Your task to perform on an android device: snooze an email in the gmail app Image 0: 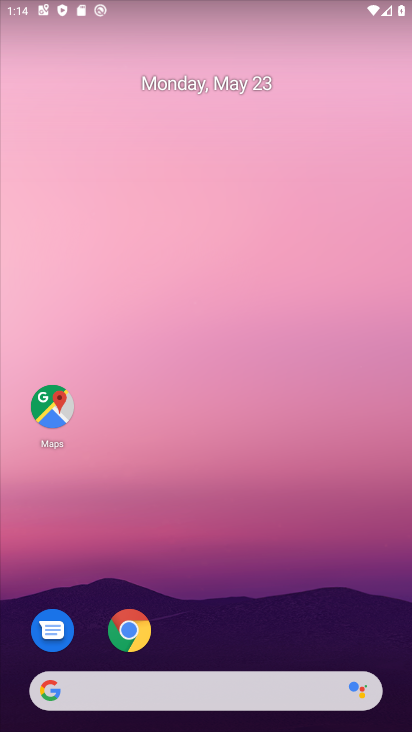
Step 0: drag from (368, 539) to (354, 196)
Your task to perform on an android device: snooze an email in the gmail app Image 1: 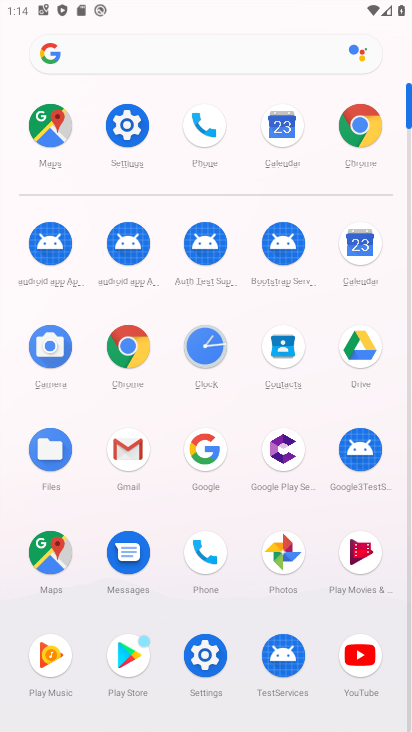
Step 1: click (132, 459)
Your task to perform on an android device: snooze an email in the gmail app Image 2: 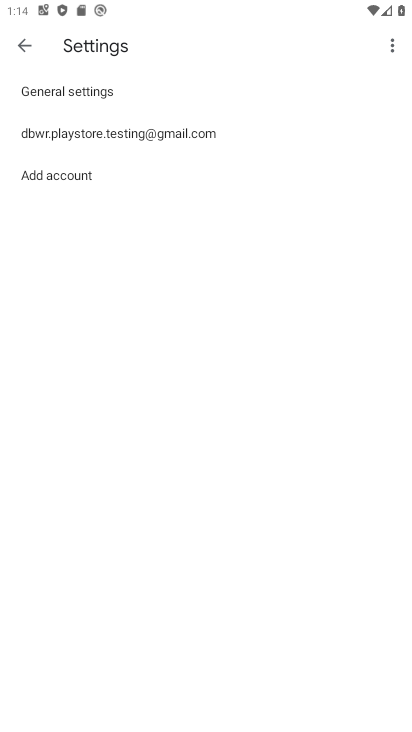
Step 2: click (160, 134)
Your task to perform on an android device: snooze an email in the gmail app Image 3: 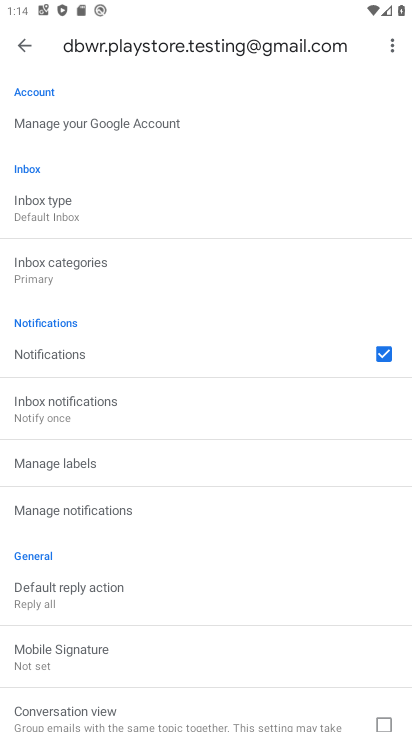
Step 3: click (36, 46)
Your task to perform on an android device: snooze an email in the gmail app Image 4: 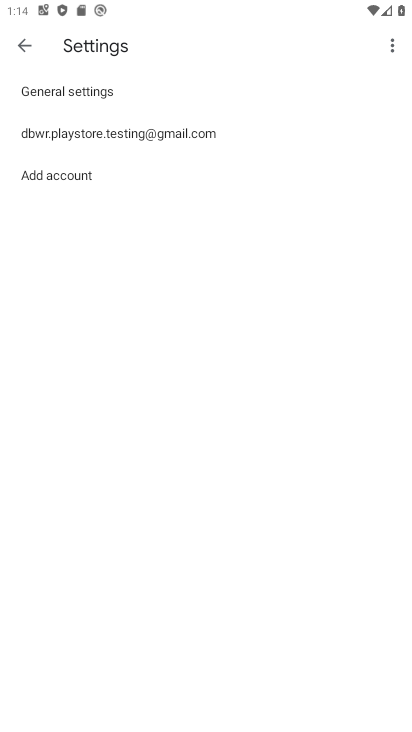
Step 4: click (35, 46)
Your task to perform on an android device: snooze an email in the gmail app Image 5: 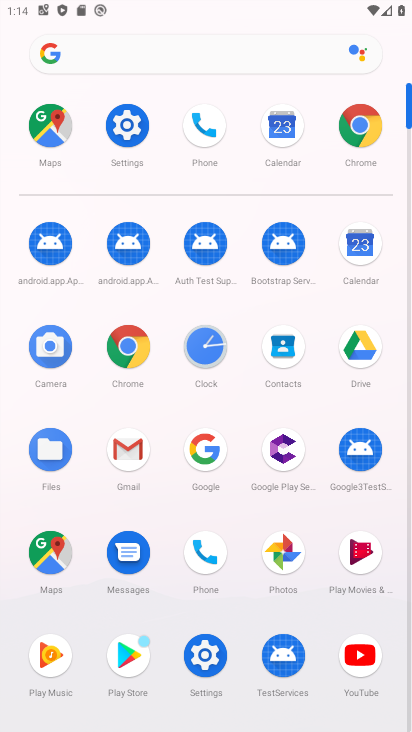
Step 5: click (123, 454)
Your task to perform on an android device: snooze an email in the gmail app Image 6: 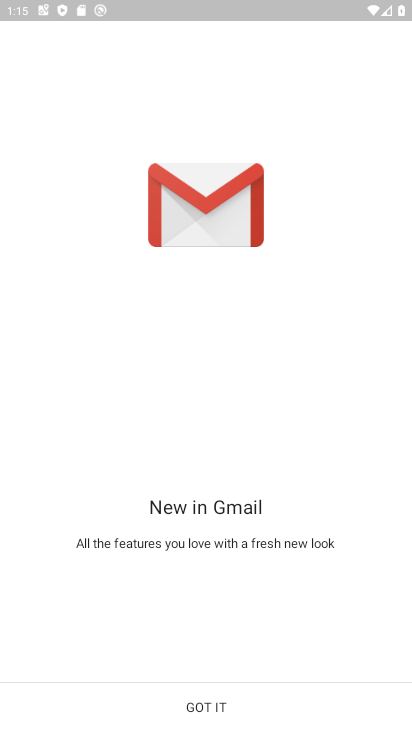
Step 6: click (230, 724)
Your task to perform on an android device: snooze an email in the gmail app Image 7: 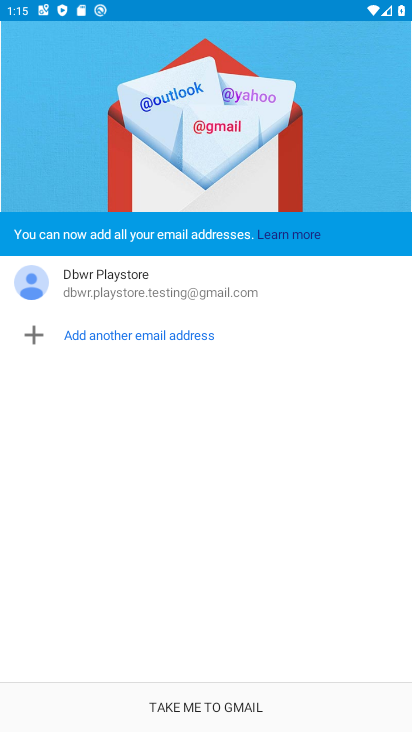
Step 7: click (230, 713)
Your task to perform on an android device: snooze an email in the gmail app Image 8: 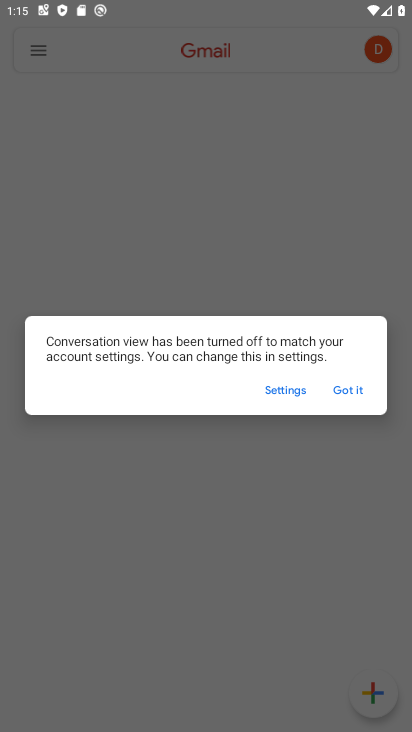
Step 8: click (343, 375)
Your task to perform on an android device: snooze an email in the gmail app Image 9: 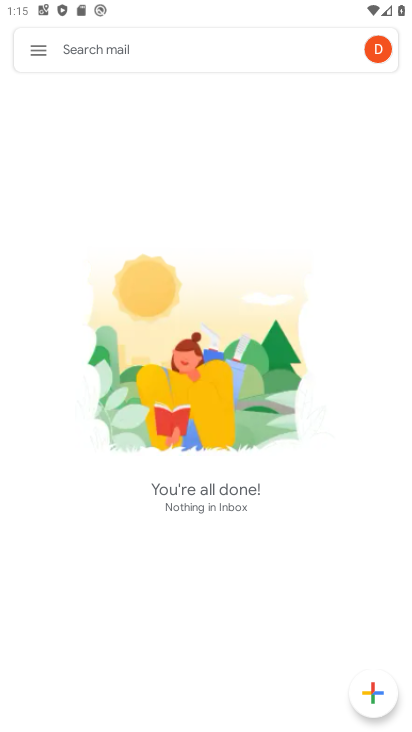
Step 9: click (51, 47)
Your task to perform on an android device: snooze an email in the gmail app Image 10: 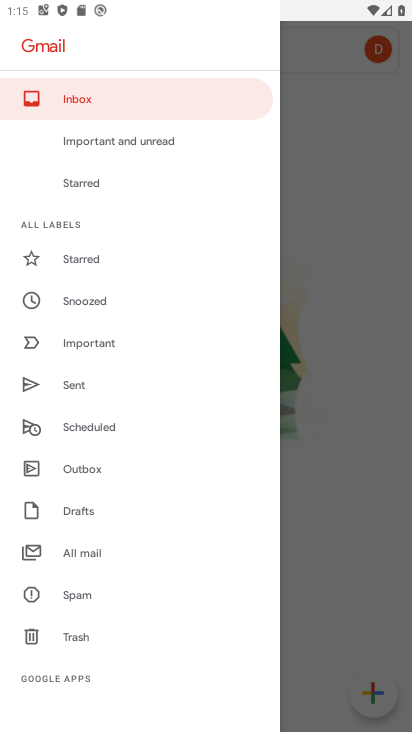
Step 10: click (112, 551)
Your task to perform on an android device: snooze an email in the gmail app Image 11: 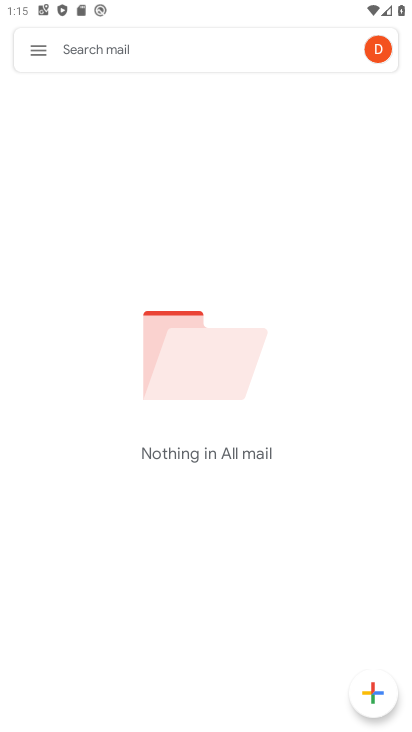
Step 11: task complete